Your task to perform on an android device: Go to settings Image 0: 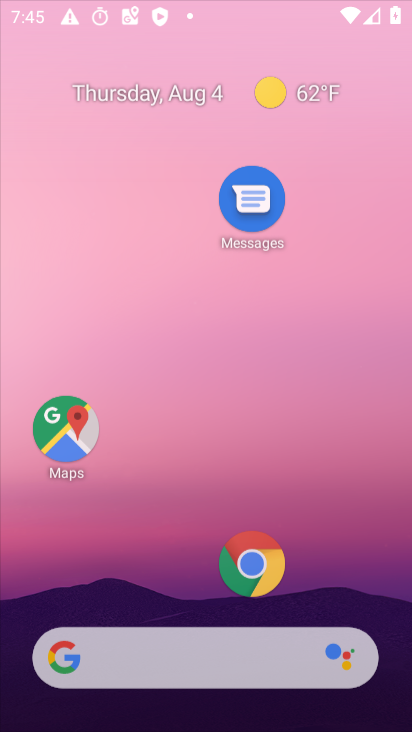
Step 0: press home button
Your task to perform on an android device: Go to settings Image 1: 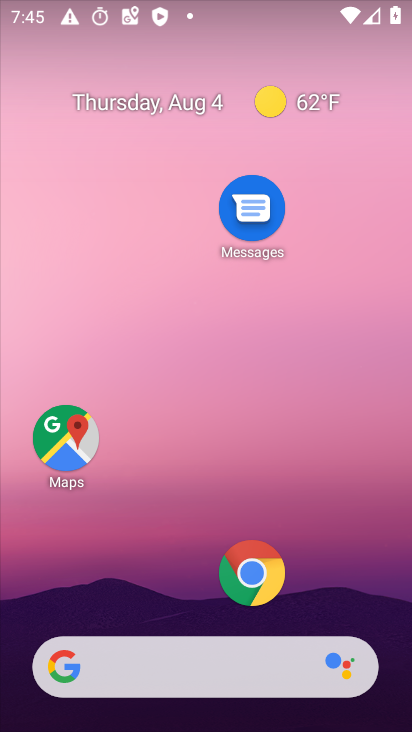
Step 1: drag from (168, 613) to (254, 91)
Your task to perform on an android device: Go to settings Image 2: 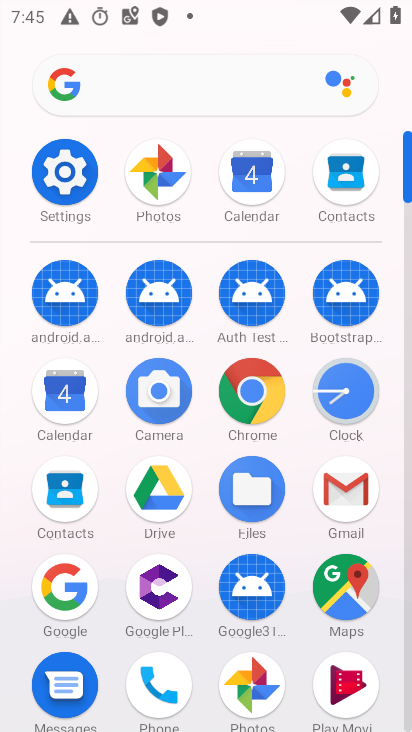
Step 2: click (85, 174)
Your task to perform on an android device: Go to settings Image 3: 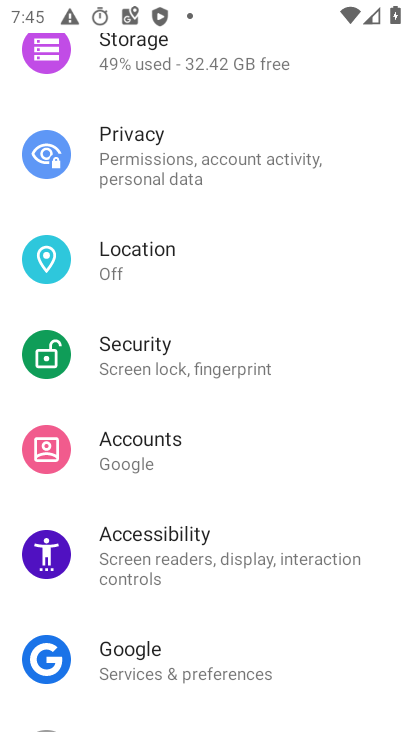
Step 3: task complete